Your task to perform on an android device: Clear all items from cart on newegg.com. Add logitech g502 to the cart on newegg.com Image 0: 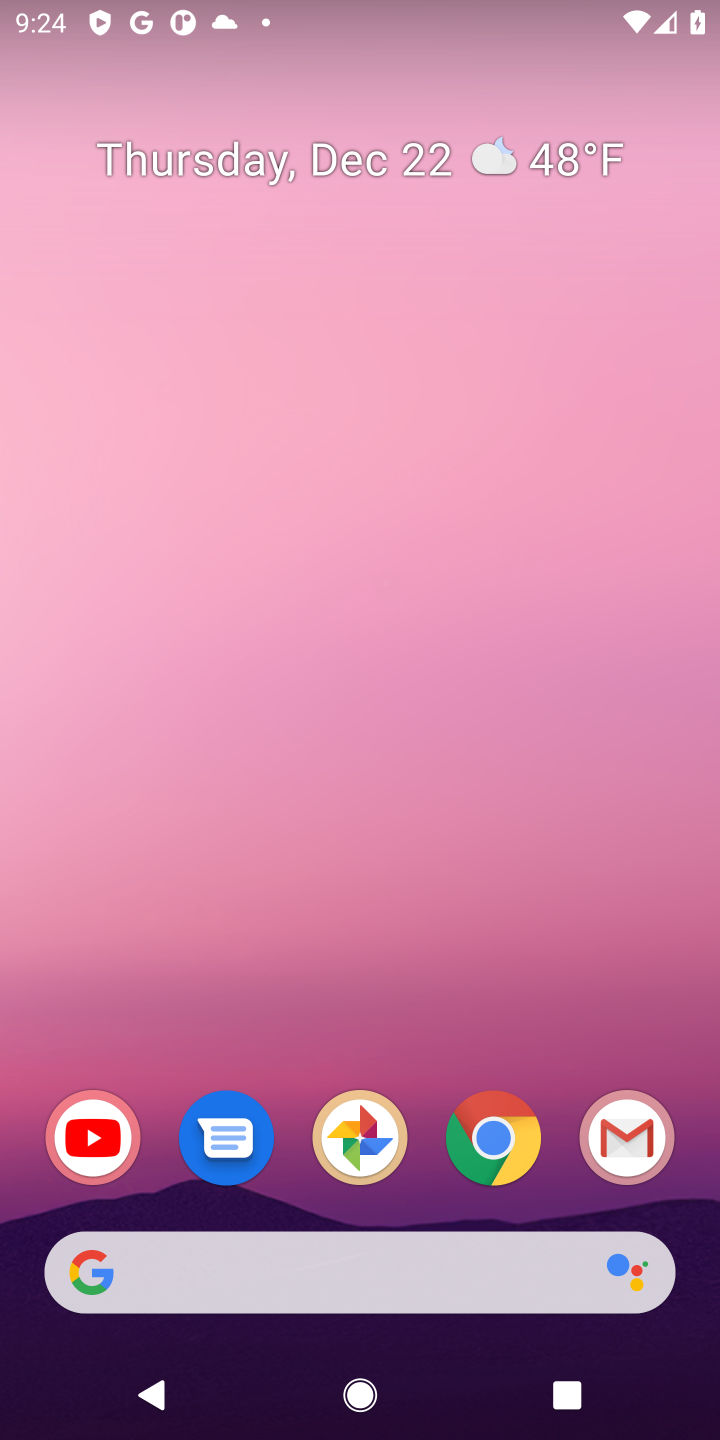
Step 0: click (489, 1145)
Your task to perform on an android device: Clear all items from cart on newegg.com. Add logitech g502 to the cart on newegg.com Image 1: 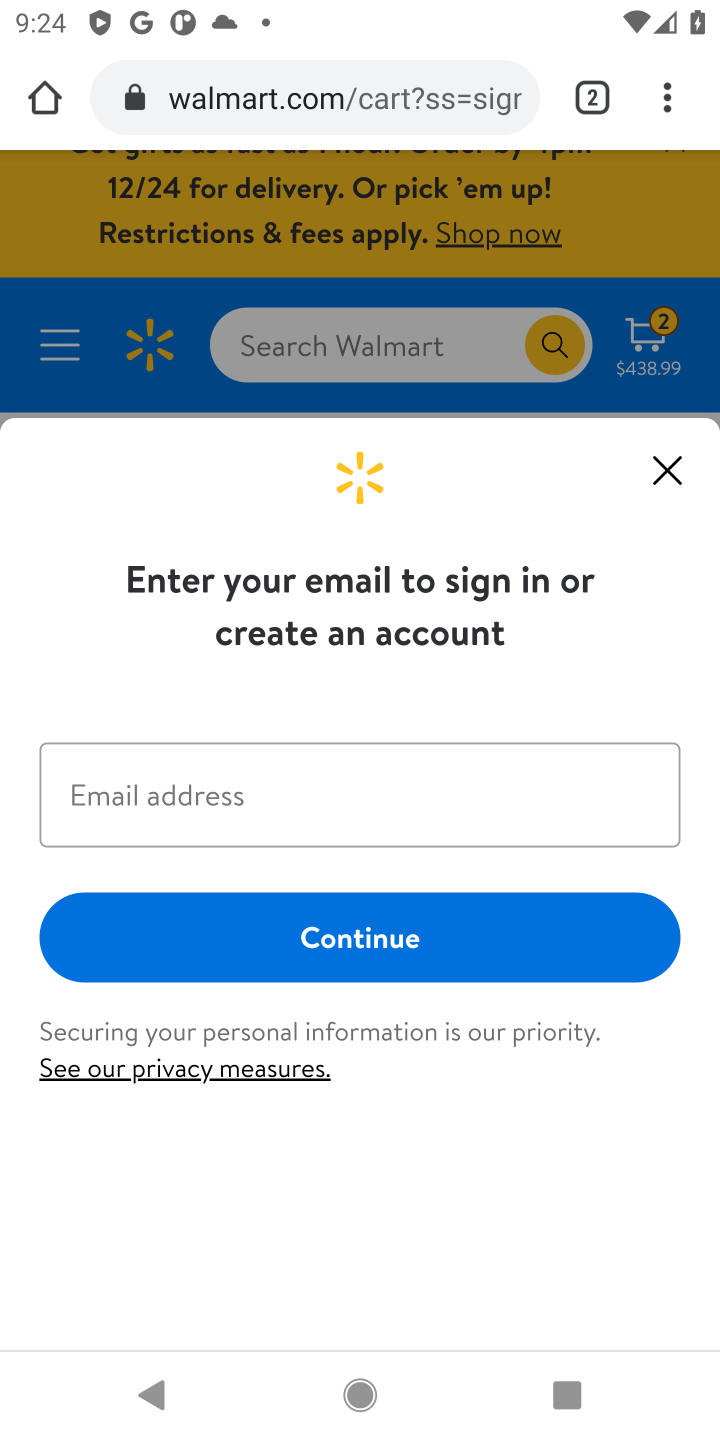
Step 1: click (210, 97)
Your task to perform on an android device: Clear all items from cart on newegg.com. Add logitech g502 to the cart on newegg.com Image 2: 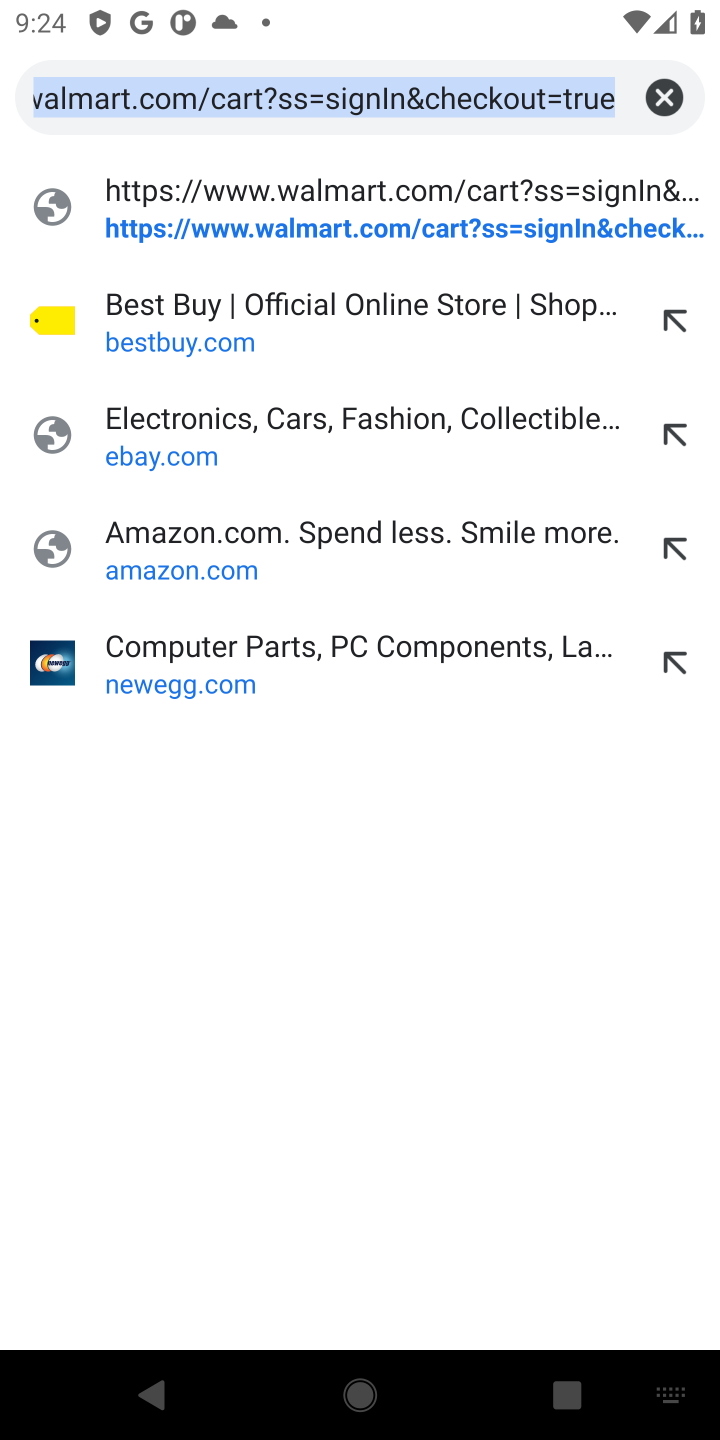
Step 2: type "newegg.com"
Your task to perform on an android device: Clear all items from cart on newegg.com. Add logitech g502 to the cart on newegg.com Image 3: 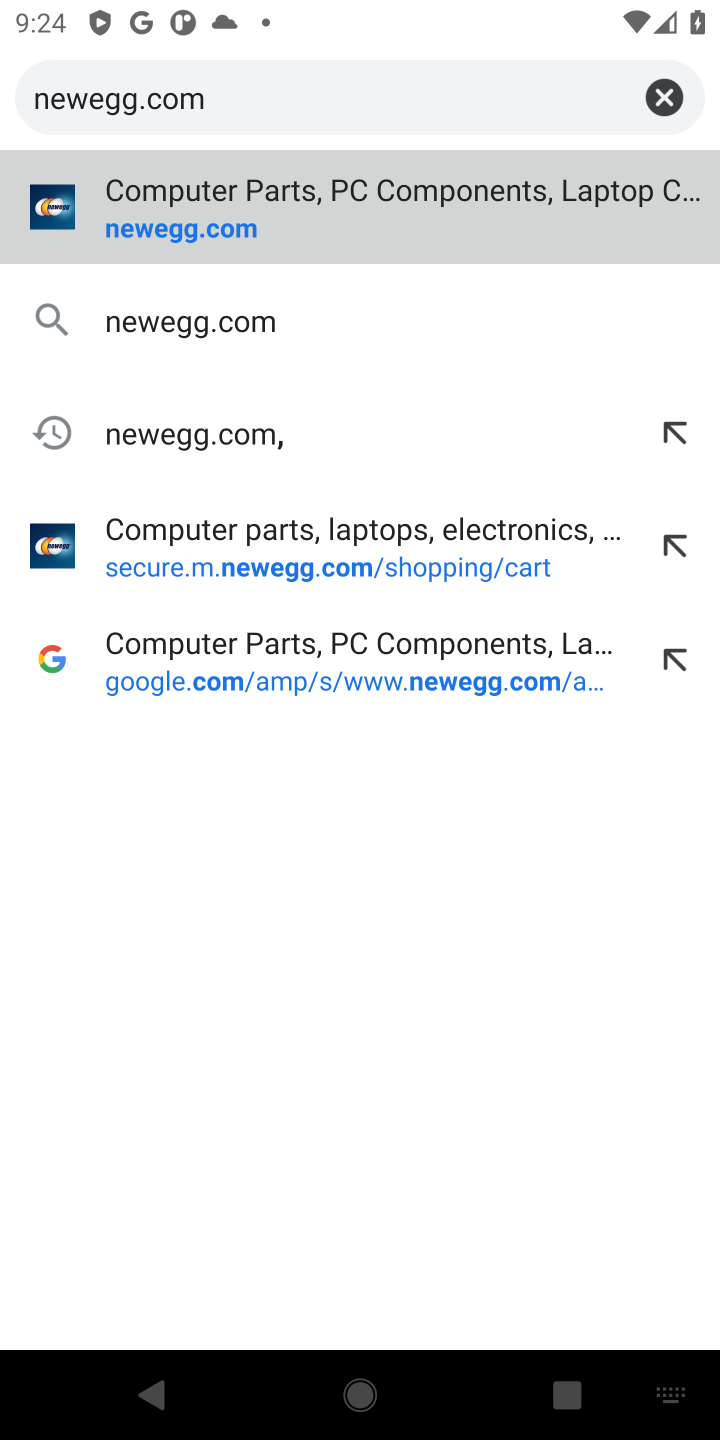
Step 3: press enter
Your task to perform on an android device: Clear all items from cart on newegg.com. Add logitech g502 to the cart on newegg.com Image 4: 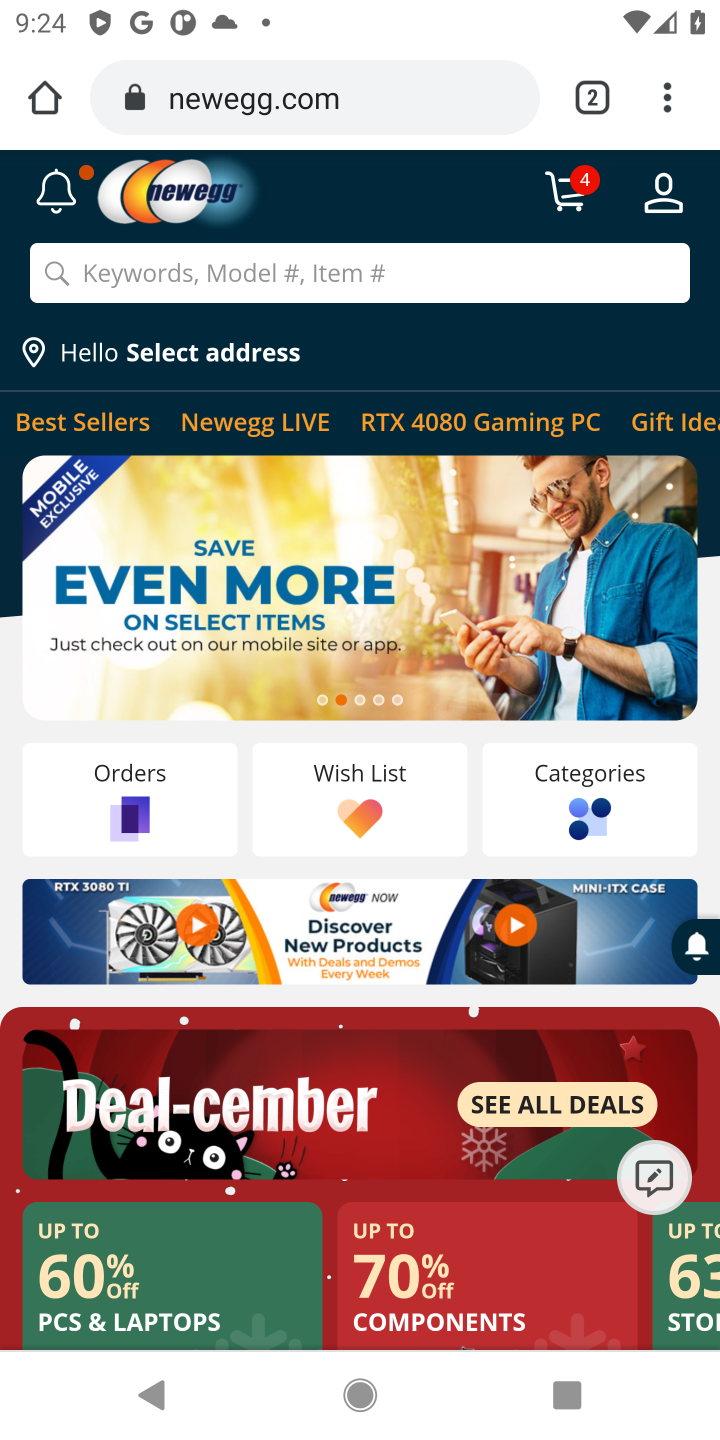
Step 4: click (552, 207)
Your task to perform on an android device: Clear all items from cart on newegg.com. Add logitech g502 to the cart on newegg.com Image 5: 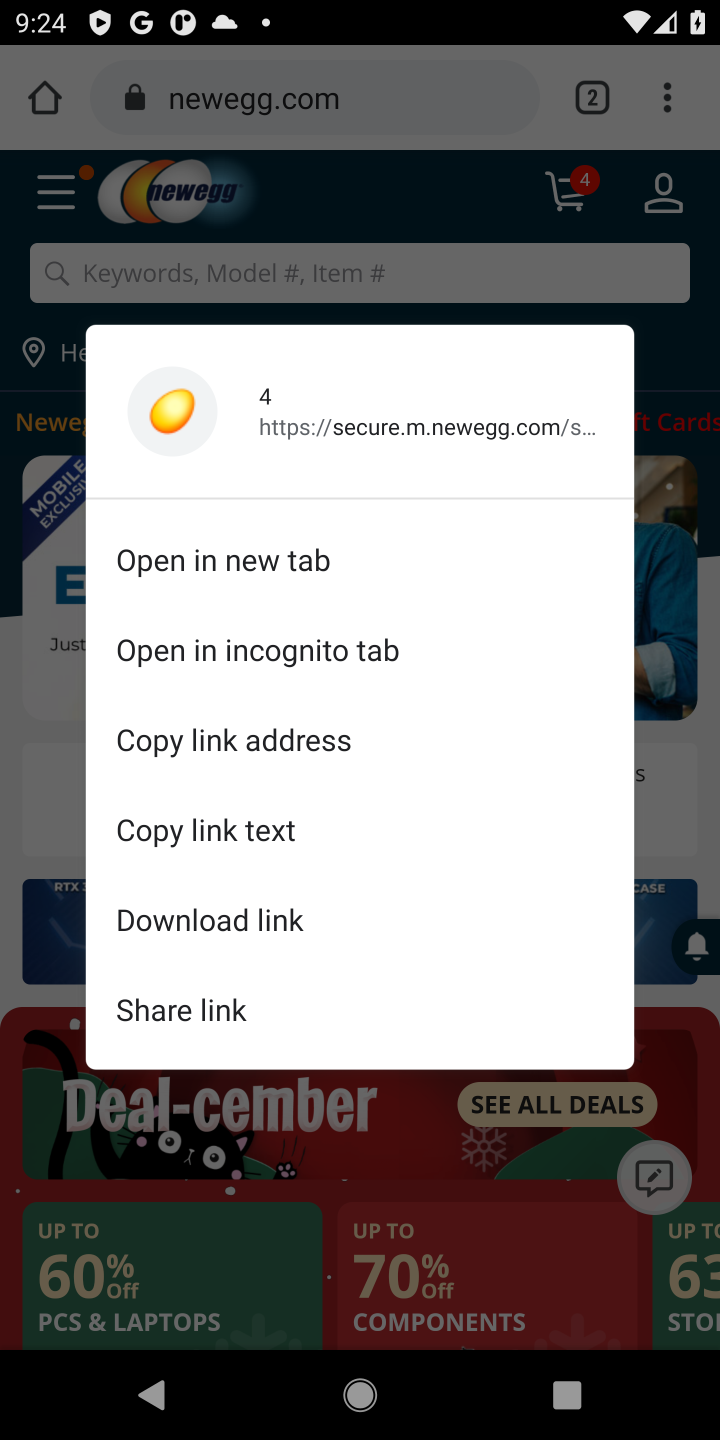
Step 5: click (574, 215)
Your task to perform on an android device: Clear all items from cart on newegg.com. Add logitech g502 to the cart on newegg.com Image 6: 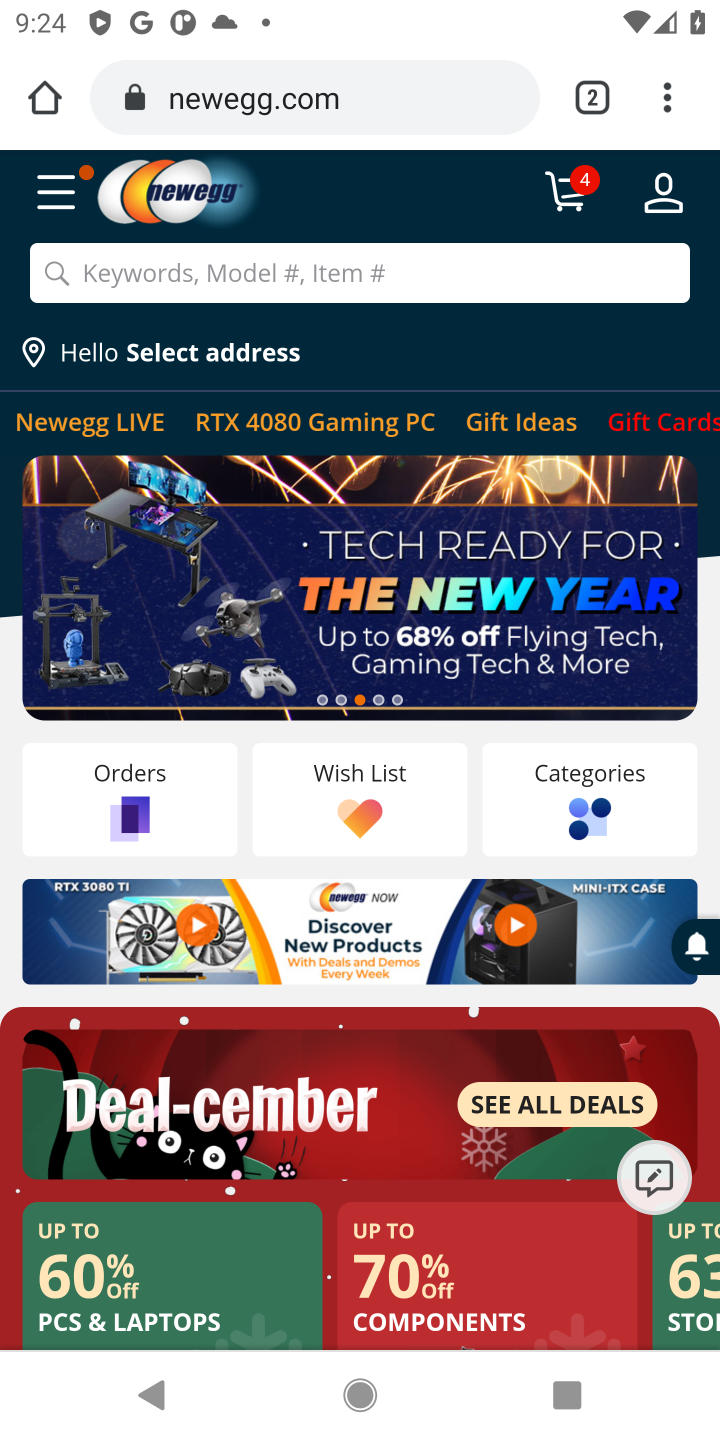
Step 6: click (574, 215)
Your task to perform on an android device: Clear all items from cart on newegg.com. Add logitech g502 to the cart on newegg.com Image 7: 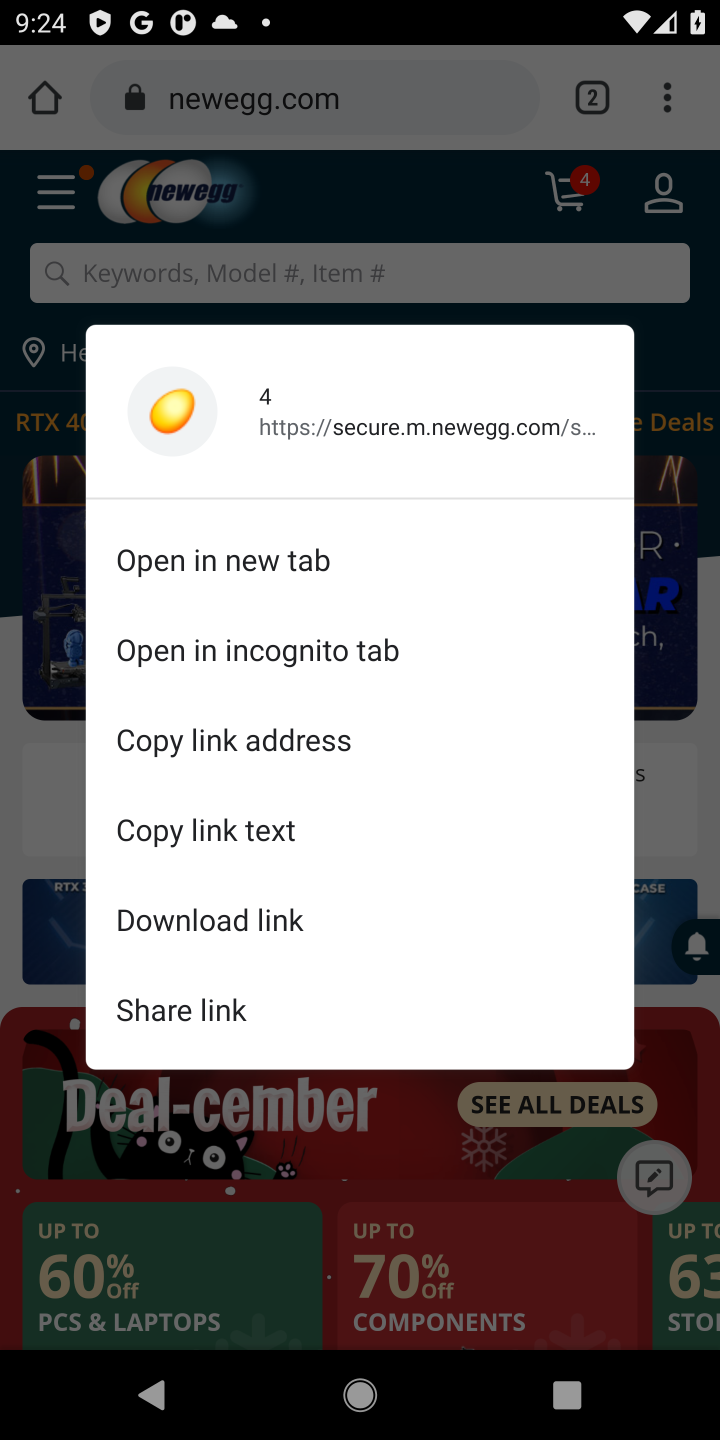
Step 7: click (574, 215)
Your task to perform on an android device: Clear all items from cart on newegg.com. Add logitech g502 to the cart on newegg.com Image 8: 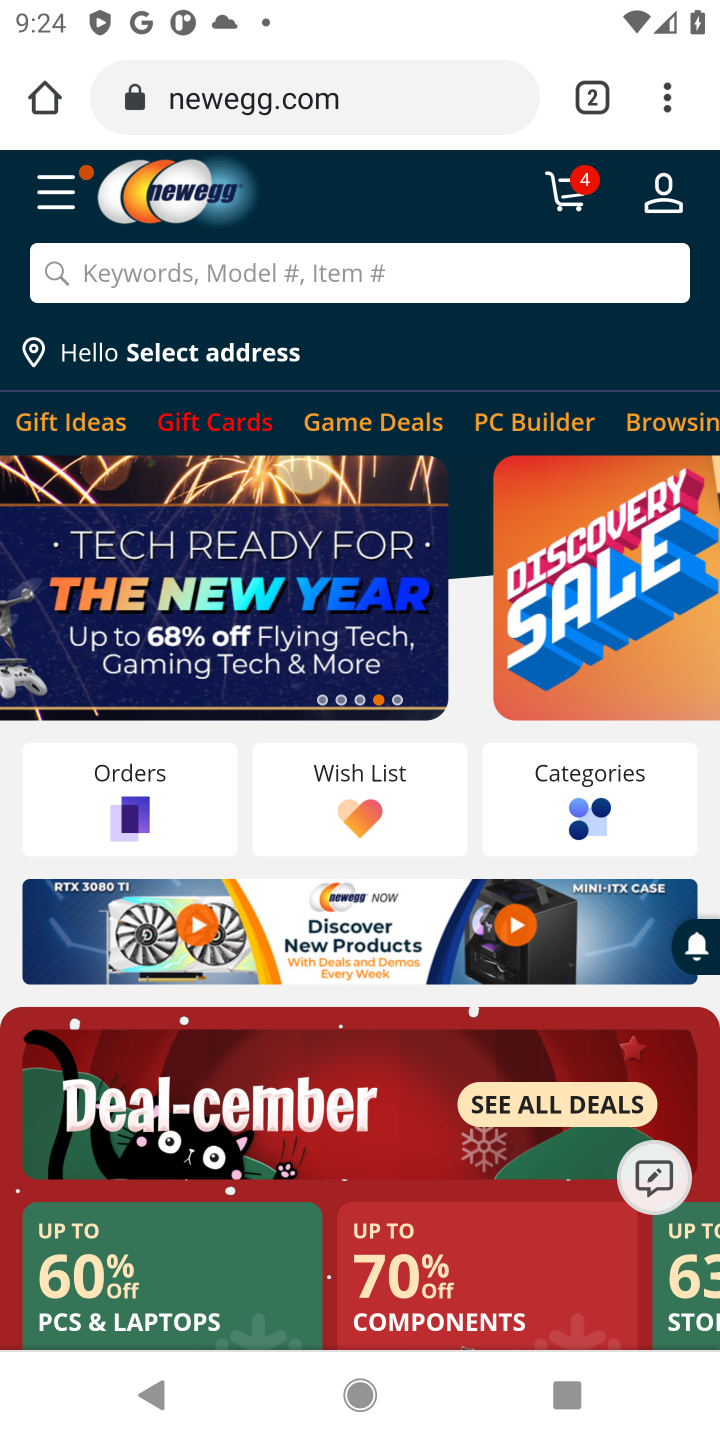
Step 8: click (579, 203)
Your task to perform on an android device: Clear all items from cart on newegg.com. Add logitech g502 to the cart on newegg.com Image 9: 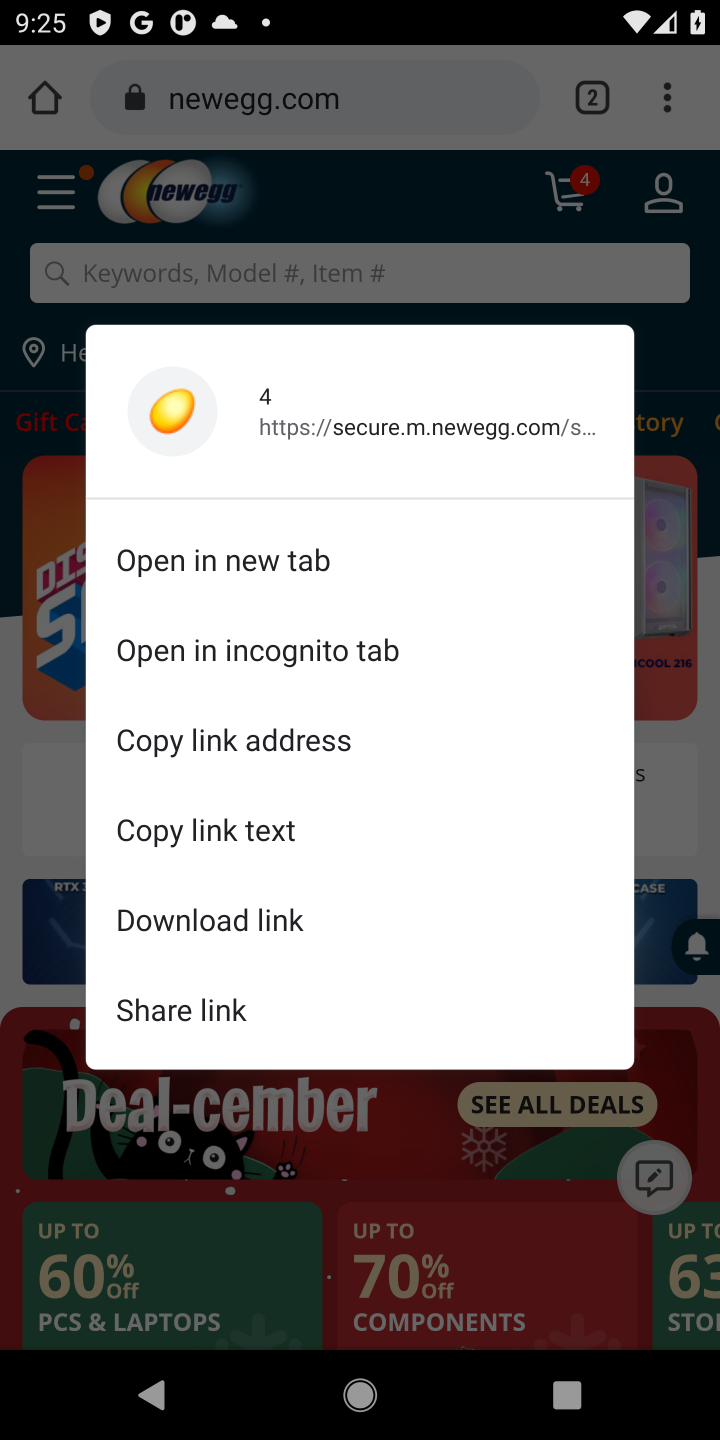
Step 9: click (579, 203)
Your task to perform on an android device: Clear all items from cart on newegg.com. Add logitech g502 to the cart on newegg.com Image 10: 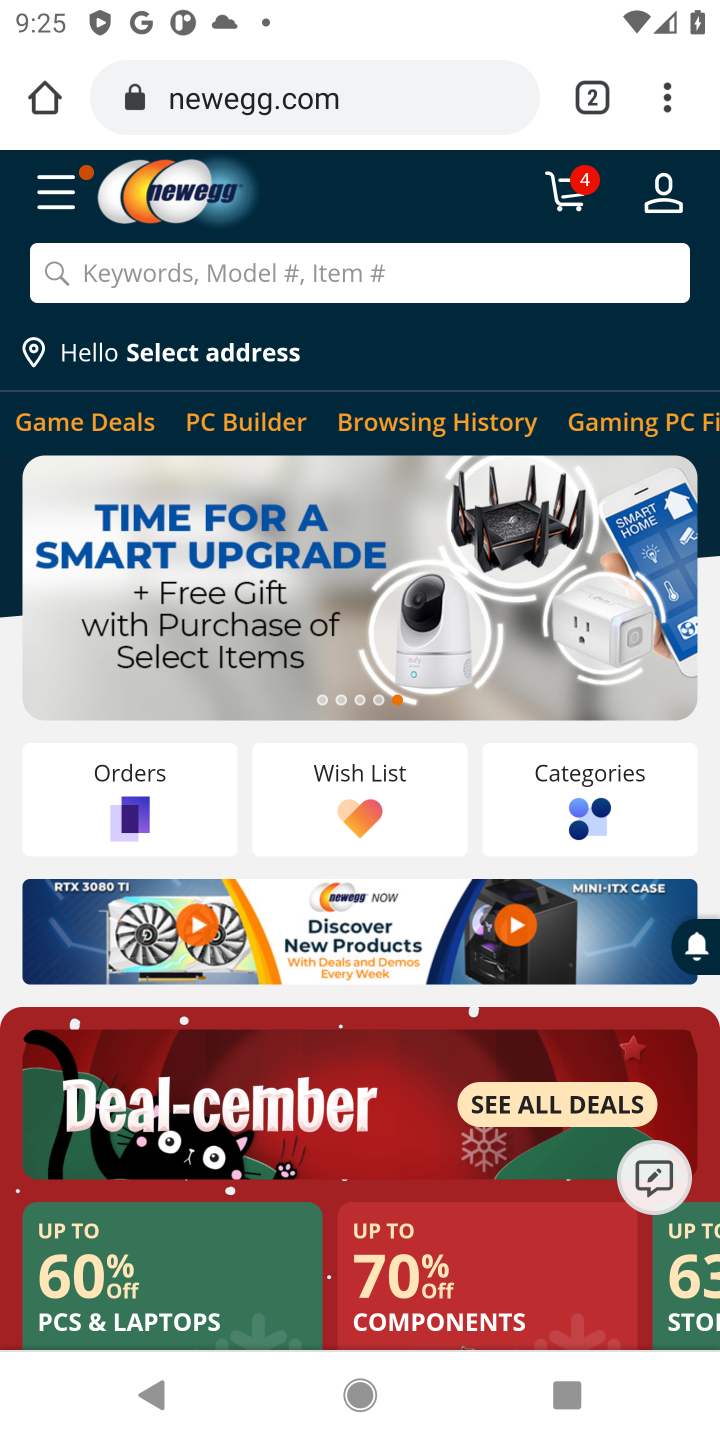
Step 10: click (575, 198)
Your task to perform on an android device: Clear all items from cart on newegg.com. Add logitech g502 to the cart on newegg.com Image 11: 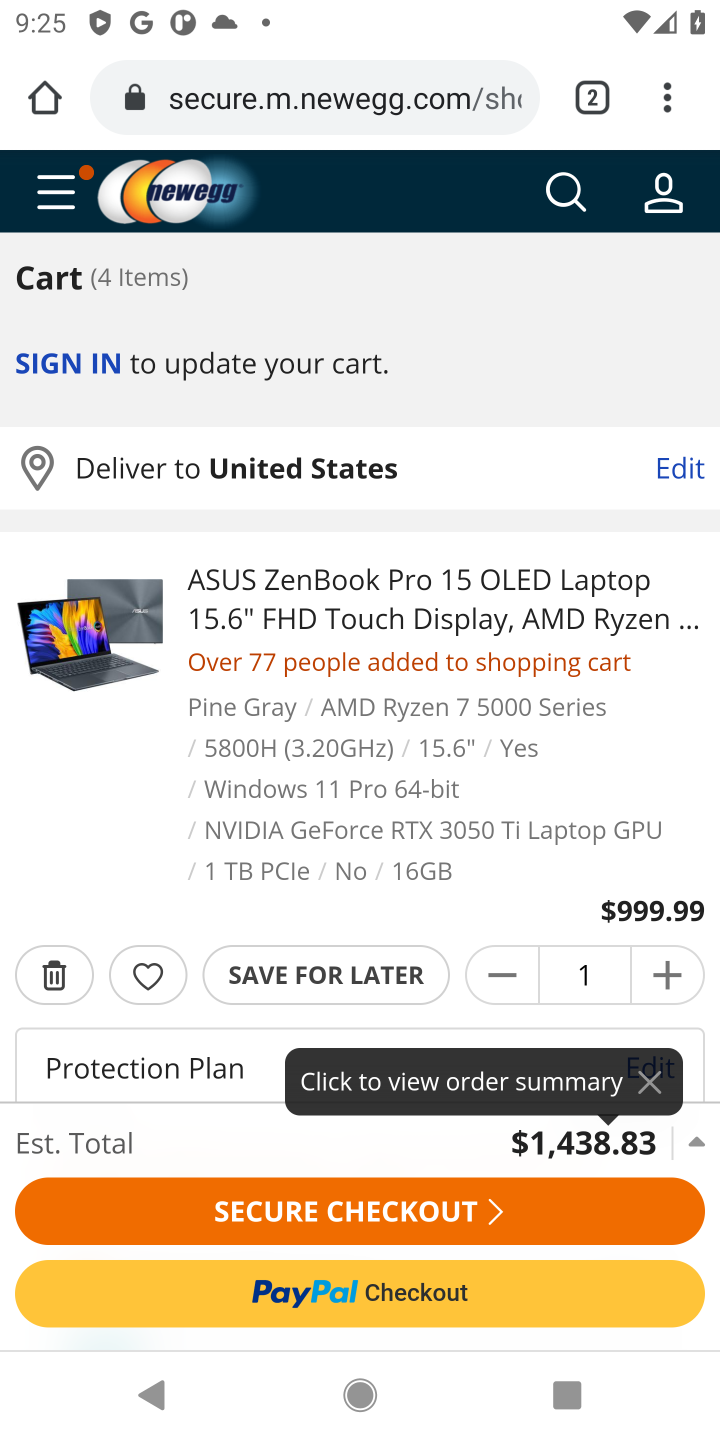
Step 11: drag from (580, 436) to (549, 220)
Your task to perform on an android device: Clear all items from cart on newegg.com. Add logitech g502 to the cart on newegg.com Image 12: 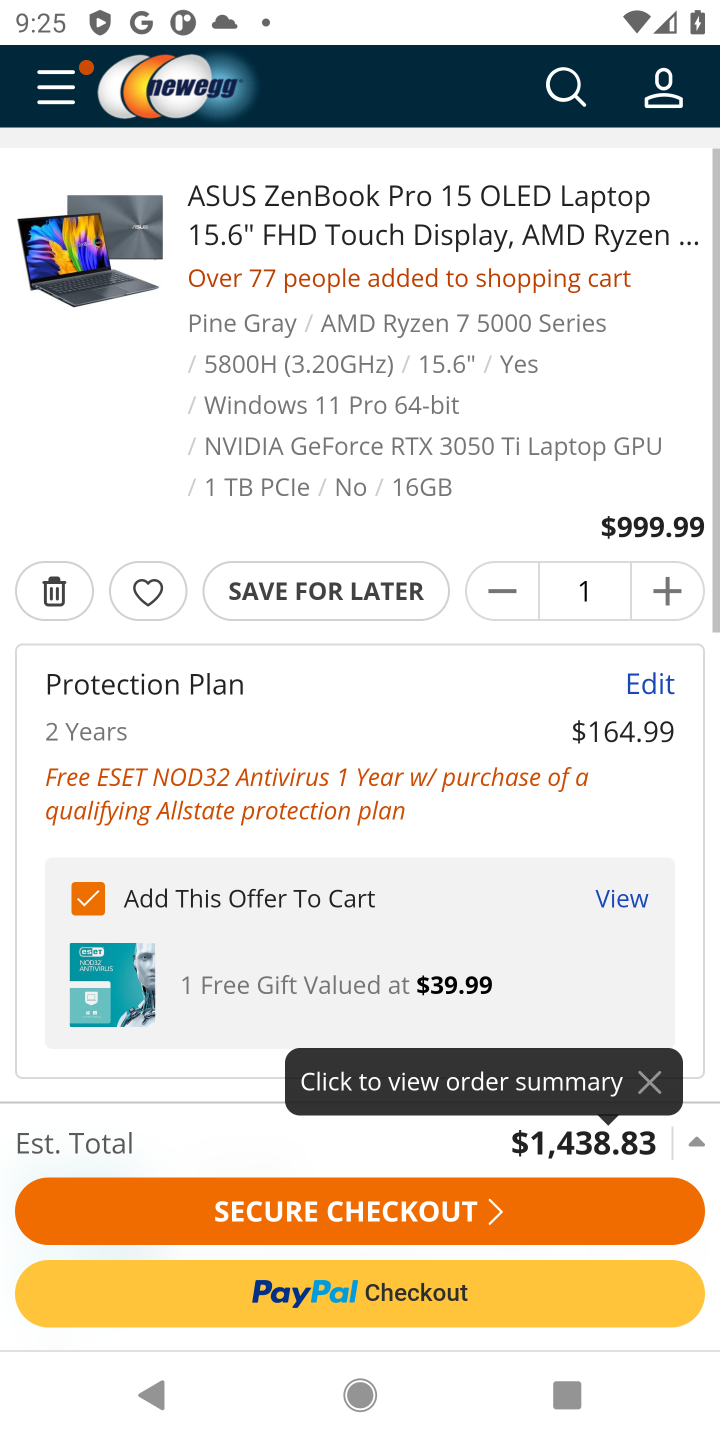
Step 12: drag from (549, 541) to (565, 267)
Your task to perform on an android device: Clear all items from cart on newegg.com. Add logitech g502 to the cart on newegg.com Image 13: 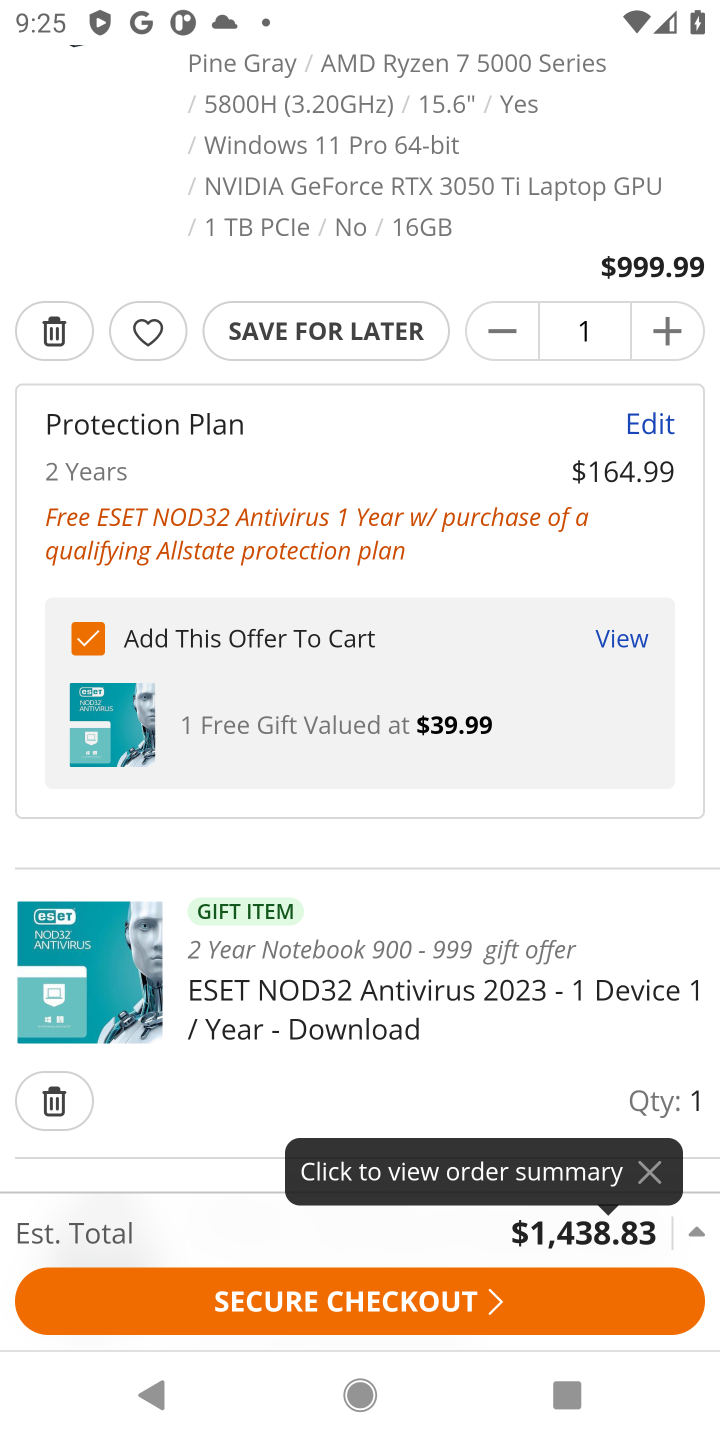
Step 13: drag from (526, 872) to (571, 227)
Your task to perform on an android device: Clear all items from cart on newegg.com. Add logitech g502 to the cart on newegg.com Image 14: 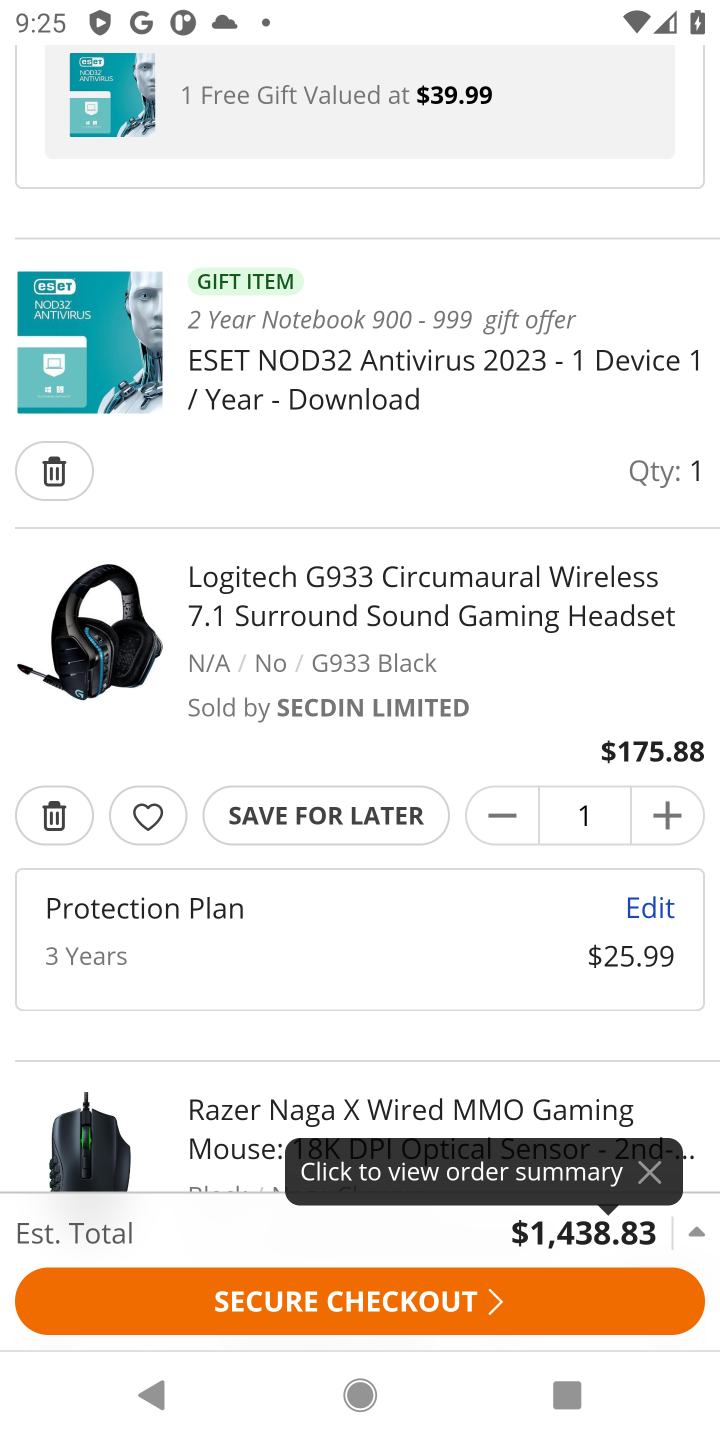
Step 14: drag from (580, 494) to (559, 336)
Your task to perform on an android device: Clear all items from cart on newegg.com. Add logitech g502 to the cart on newegg.com Image 15: 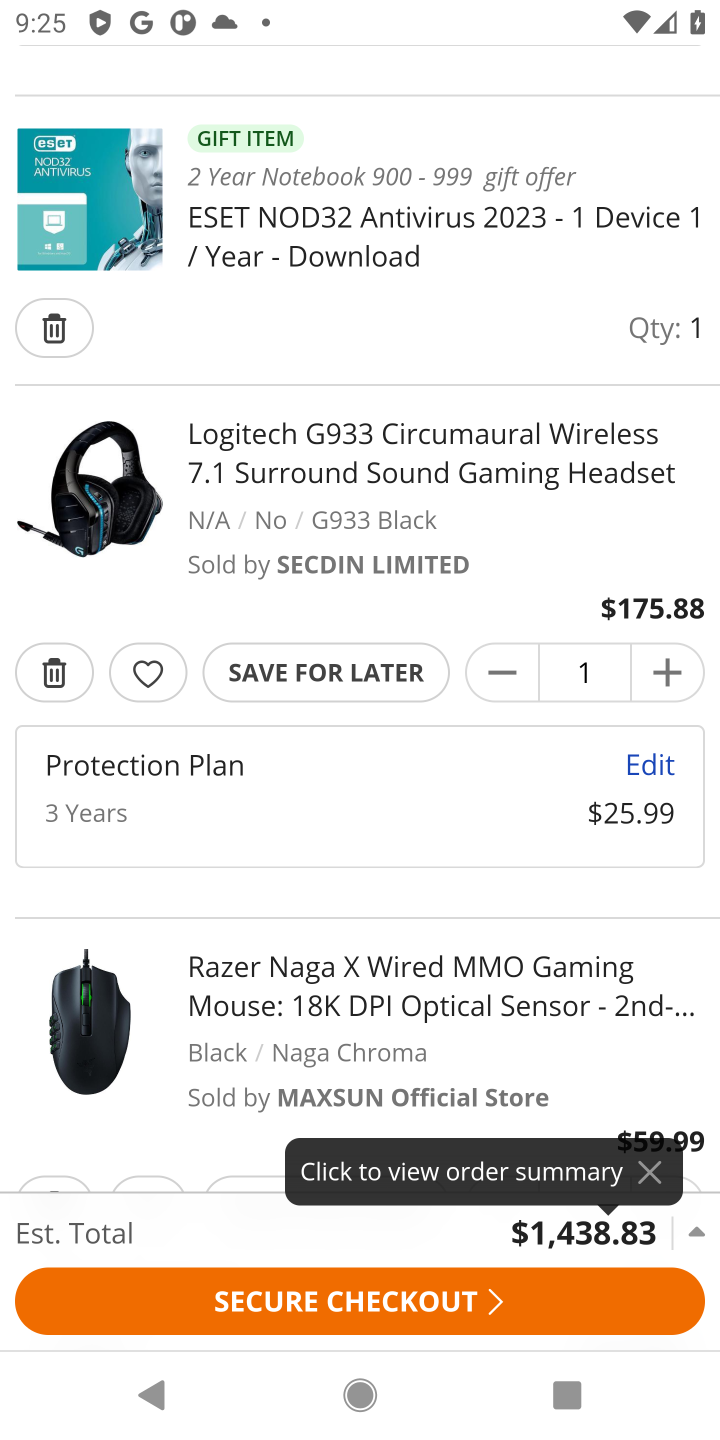
Step 15: drag from (655, 430) to (566, 40)
Your task to perform on an android device: Clear all items from cart on newegg.com. Add logitech g502 to the cart on newegg.com Image 16: 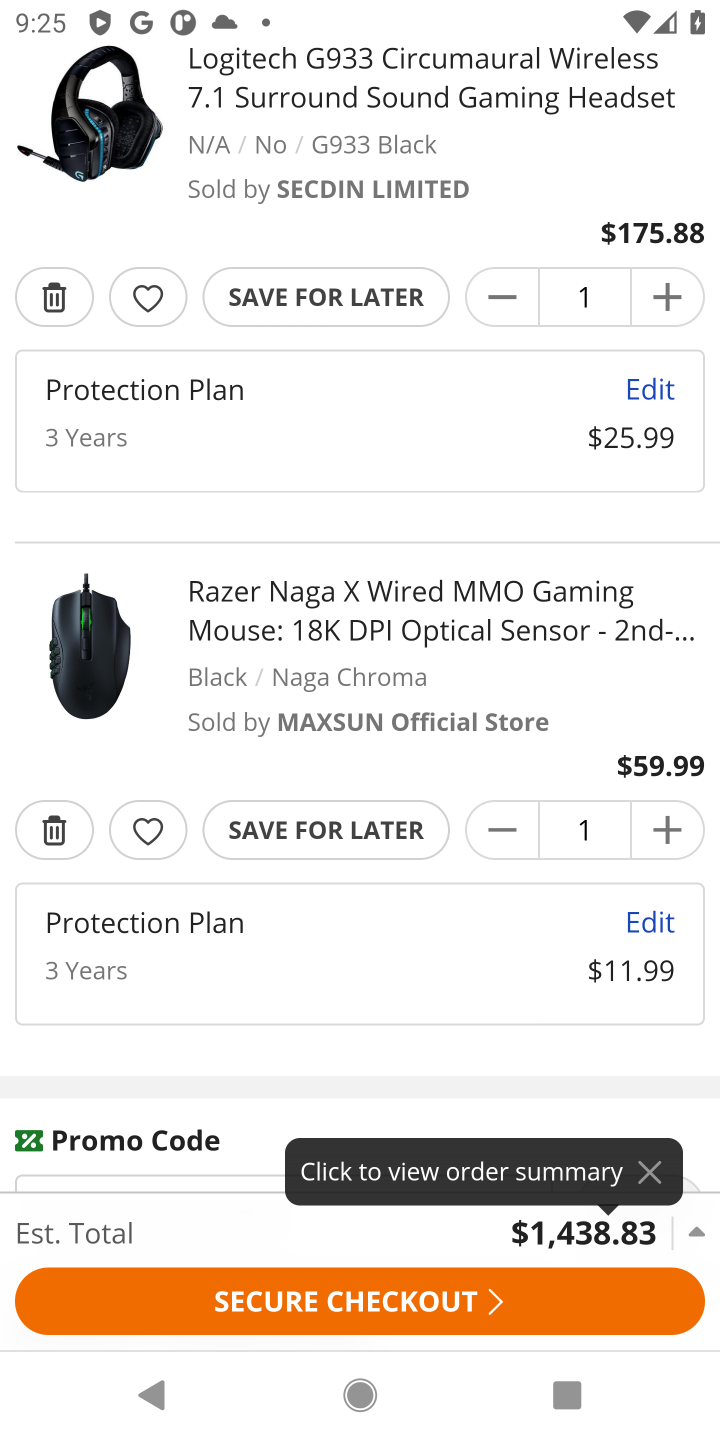
Step 16: click (44, 844)
Your task to perform on an android device: Clear all items from cart on newegg.com. Add logitech g502 to the cart on newegg.com Image 17: 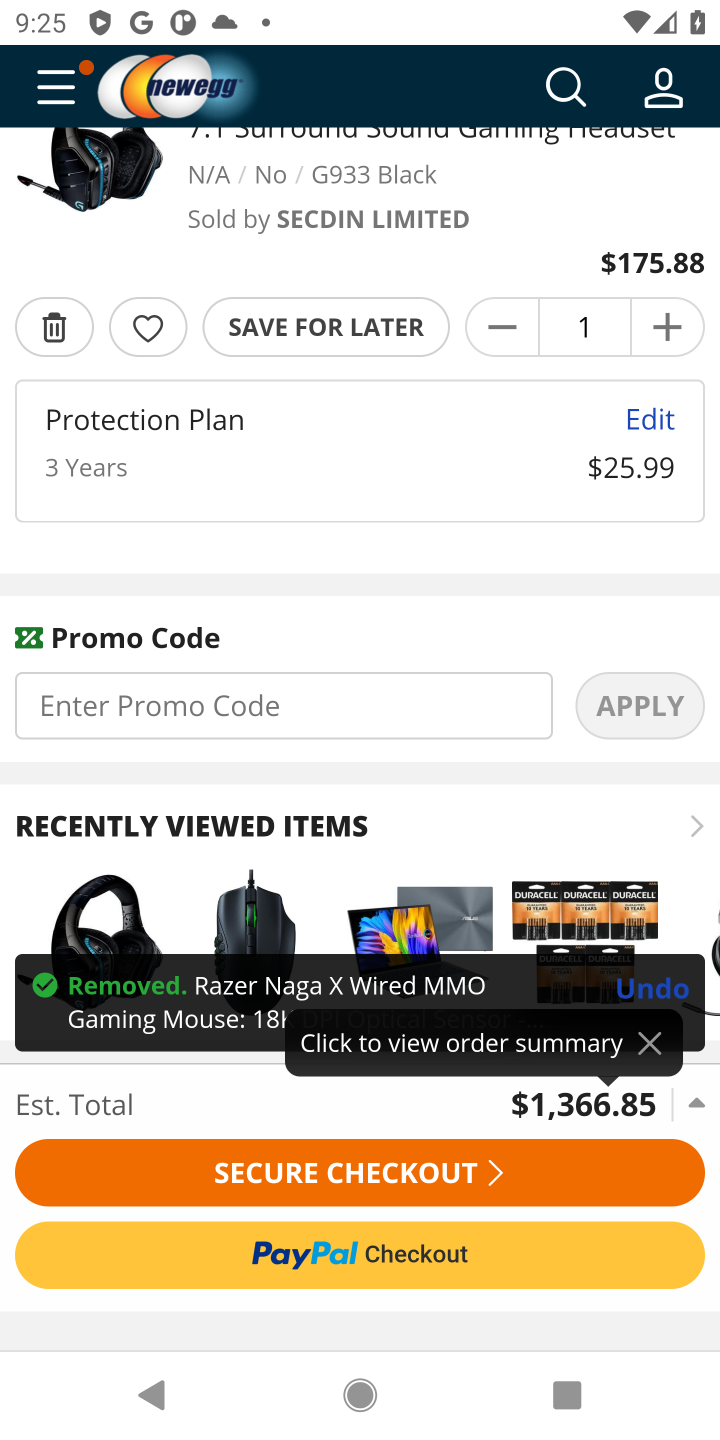
Step 17: click (57, 331)
Your task to perform on an android device: Clear all items from cart on newegg.com. Add logitech g502 to the cart on newegg.com Image 18: 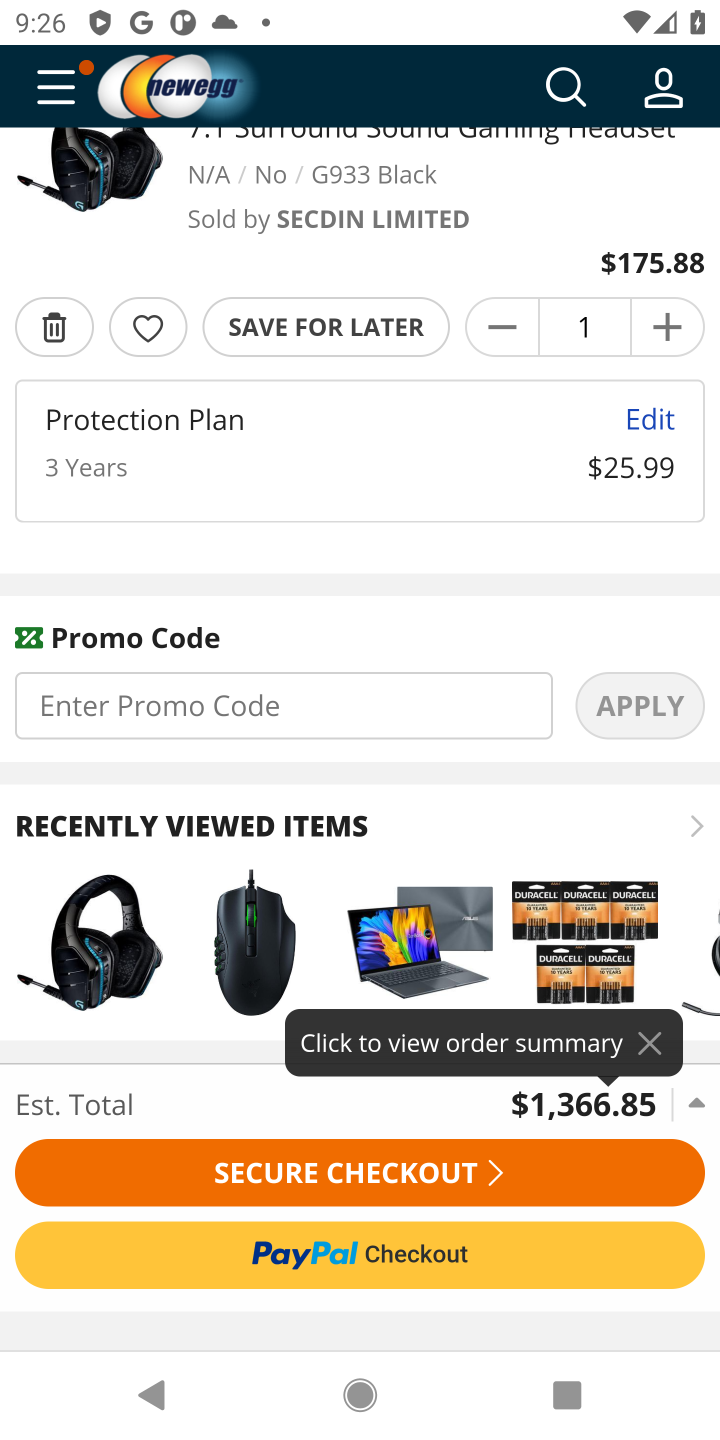
Step 18: click (38, 338)
Your task to perform on an android device: Clear all items from cart on newegg.com. Add logitech g502 to the cart on newegg.com Image 19: 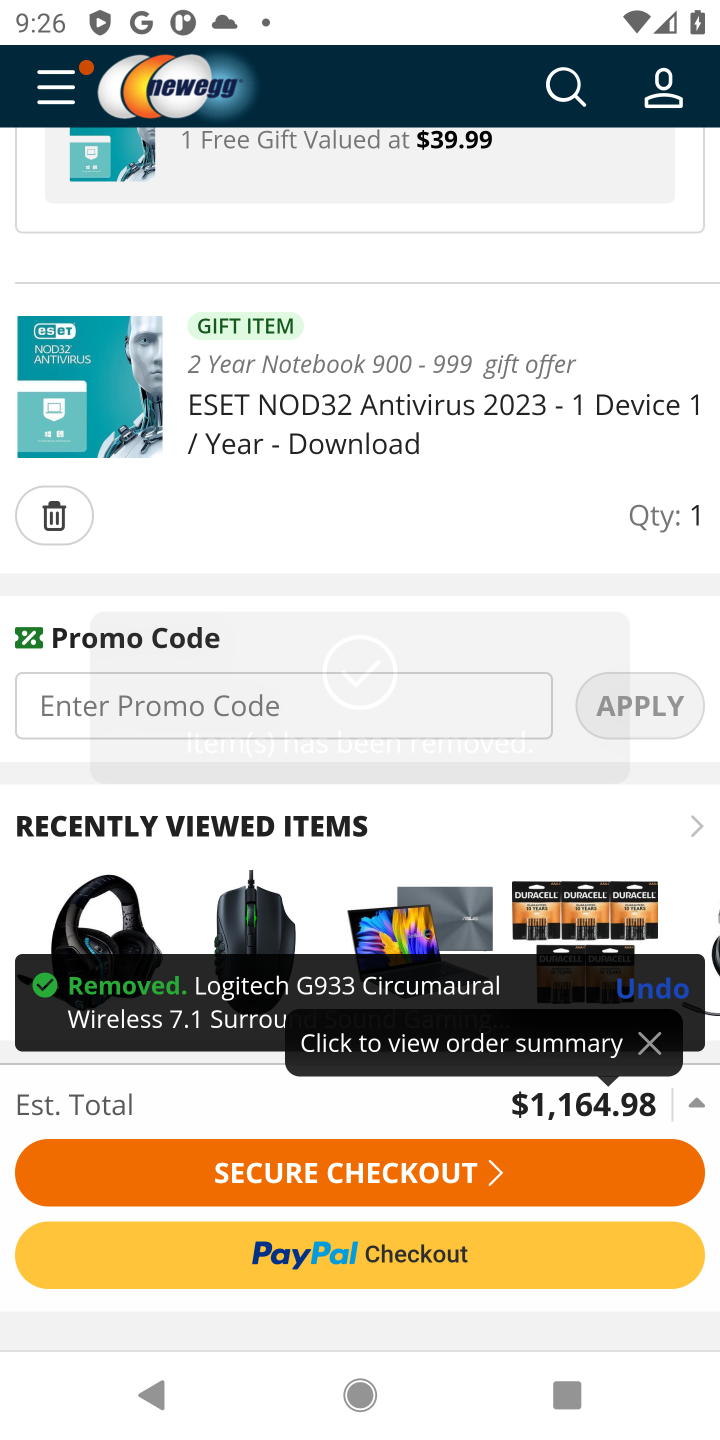
Step 19: click (52, 520)
Your task to perform on an android device: Clear all items from cart on newegg.com. Add logitech g502 to the cart on newegg.com Image 20: 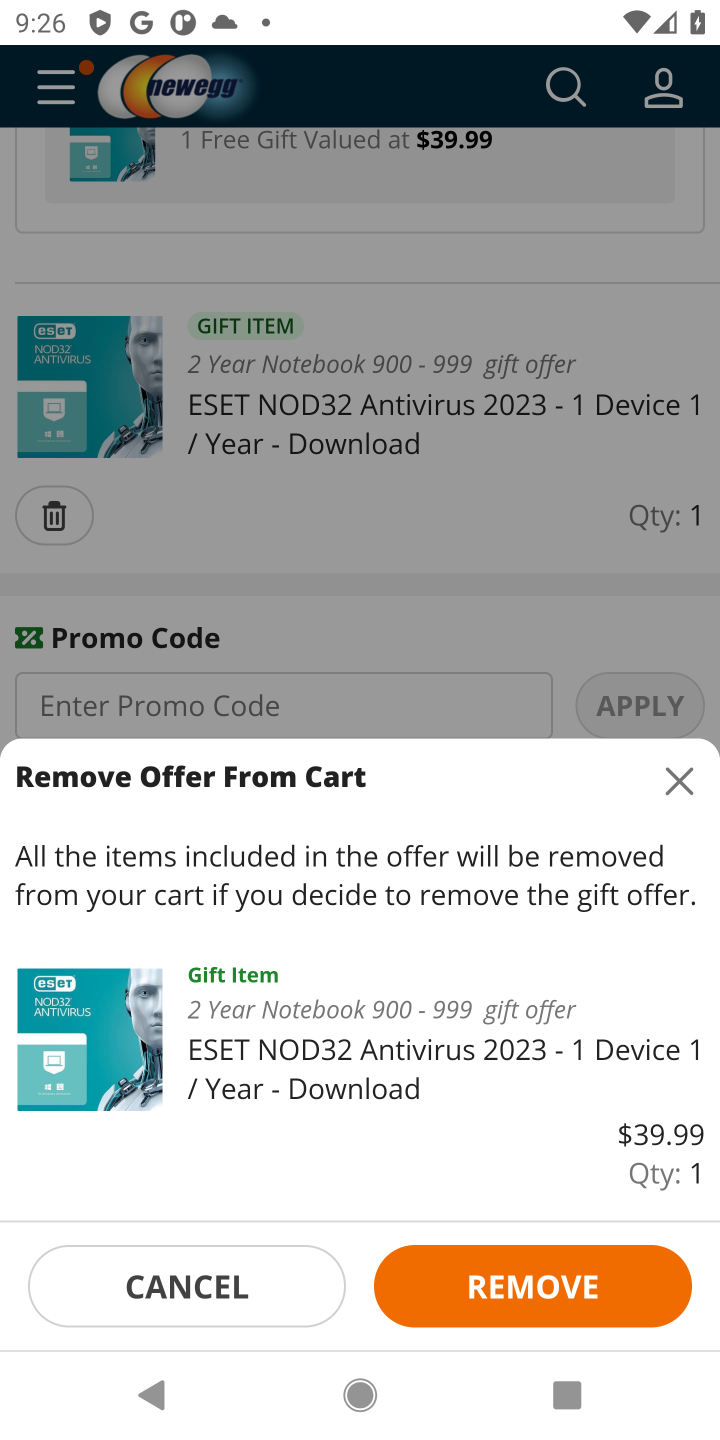
Step 20: click (519, 1291)
Your task to perform on an android device: Clear all items from cart on newegg.com. Add logitech g502 to the cart on newegg.com Image 21: 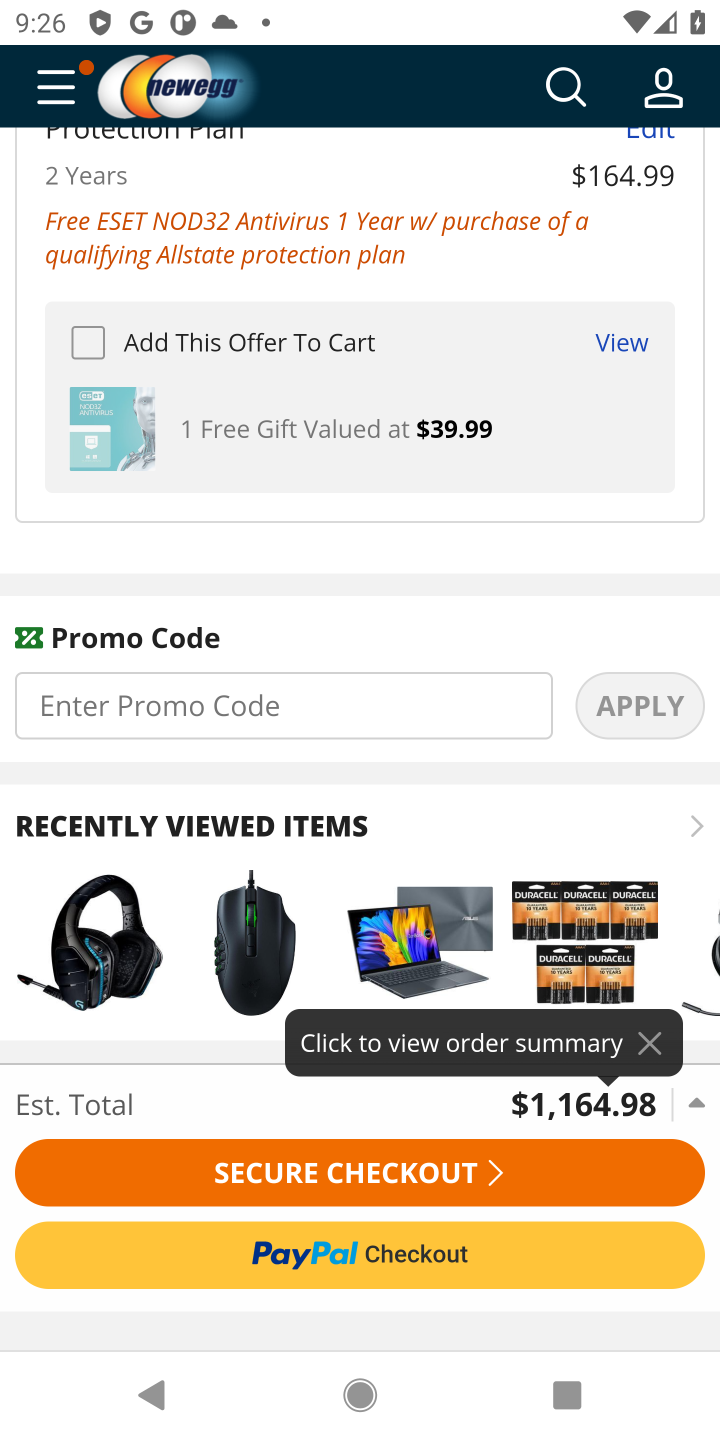
Step 21: drag from (224, 477) to (245, 1049)
Your task to perform on an android device: Clear all items from cart on newegg.com. Add logitech g502 to the cart on newegg.com Image 22: 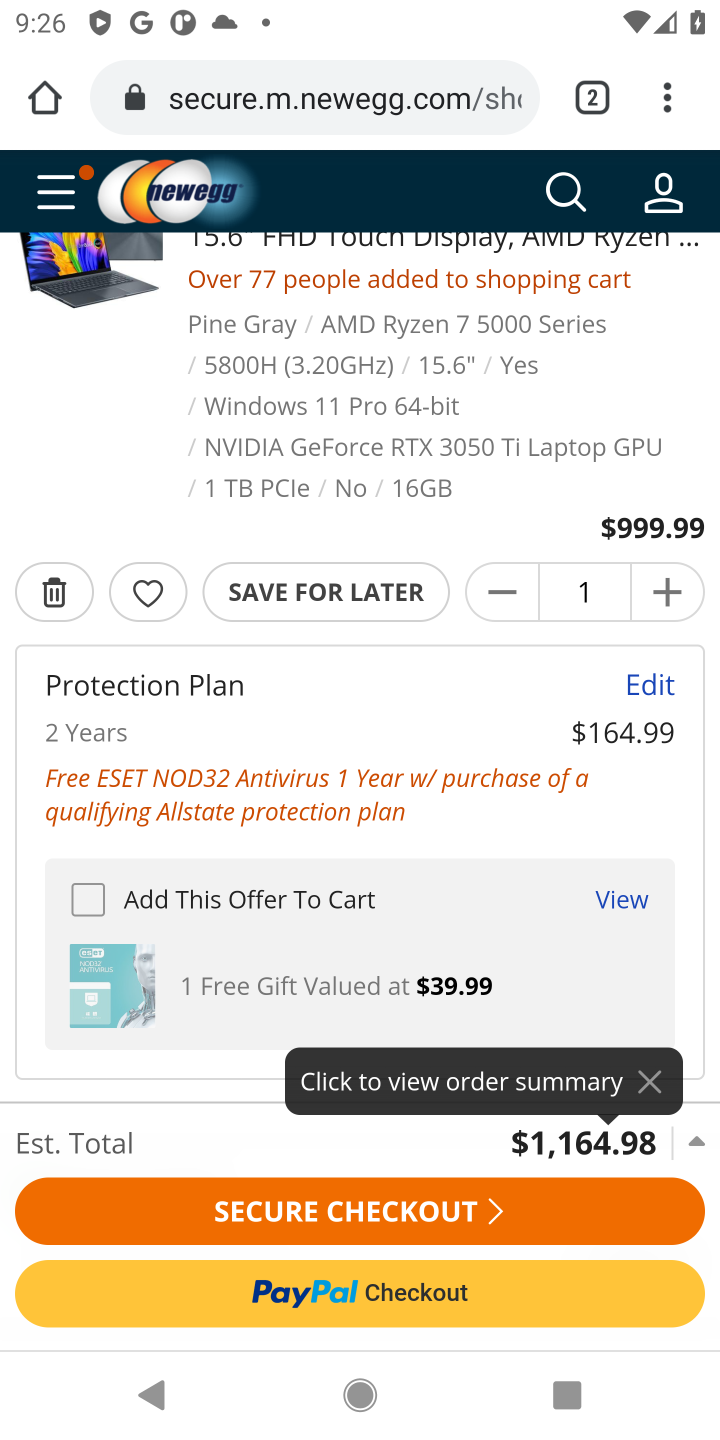
Step 22: click (54, 610)
Your task to perform on an android device: Clear all items from cart on newegg.com. Add logitech g502 to the cart on newegg.com Image 23: 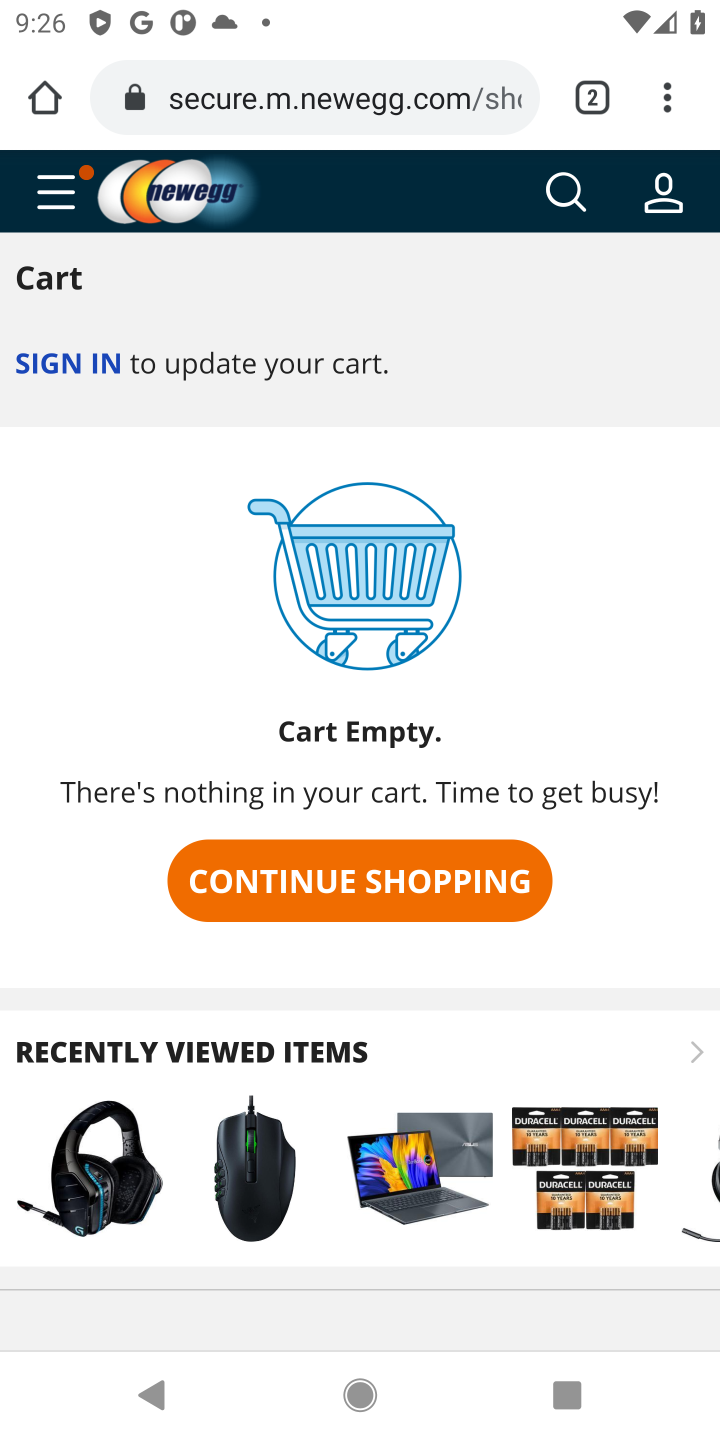
Step 23: click (572, 196)
Your task to perform on an android device: Clear all items from cart on newegg.com. Add logitech g502 to the cart on newegg.com Image 24: 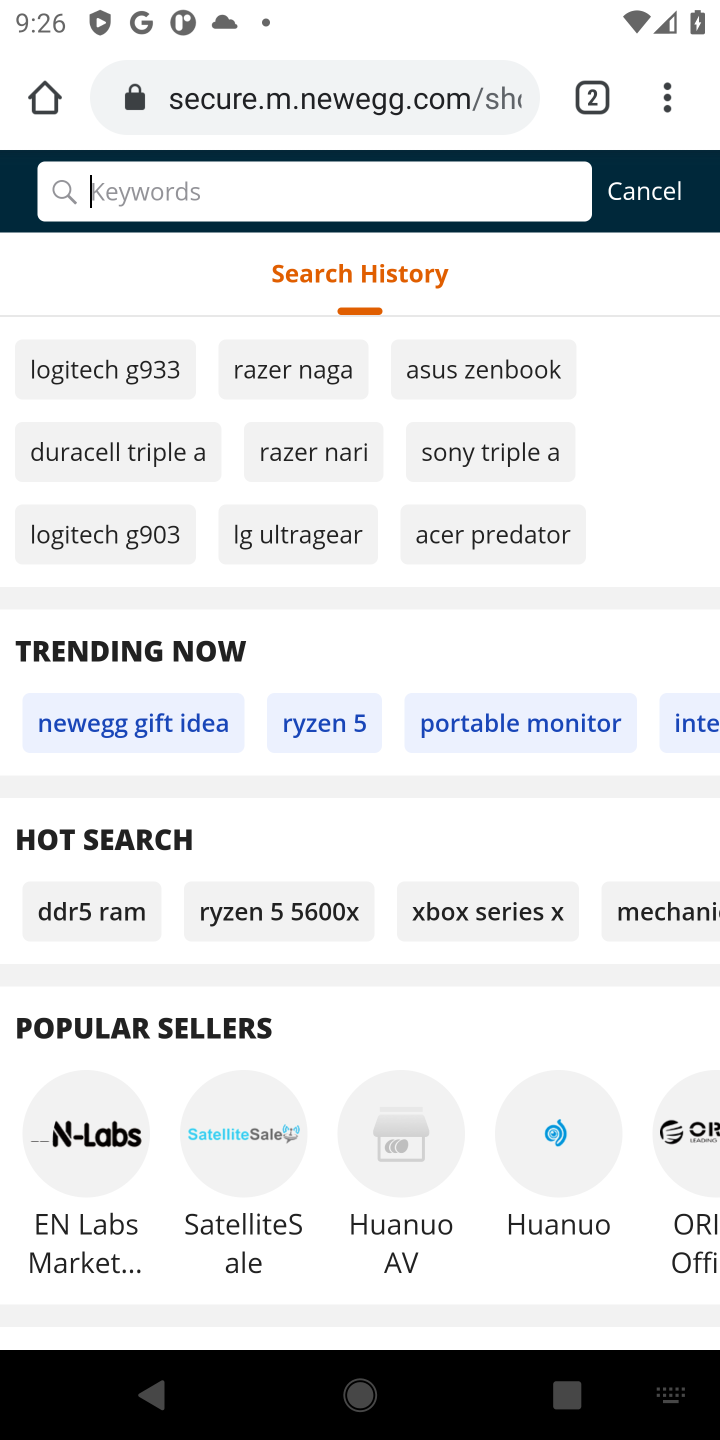
Step 24: type "ogitech g502"
Your task to perform on an android device: Clear all items from cart on newegg.com. Add logitech g502 to the cart on newegg.com Image 25: 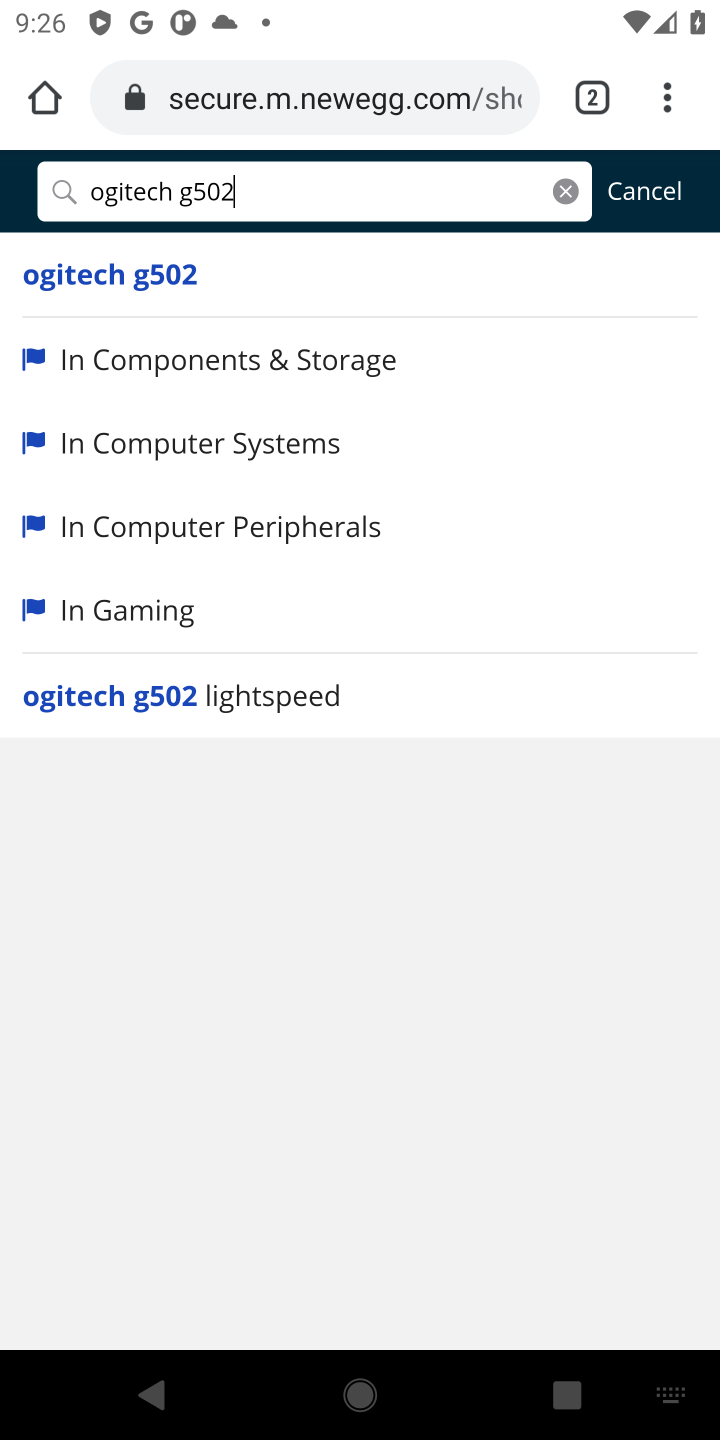
Step 25: press enter
Your task to perform on an android device: Clear all items from cart on newegg.com. Add logitech g502 to the cart on newegg.com Image 26: 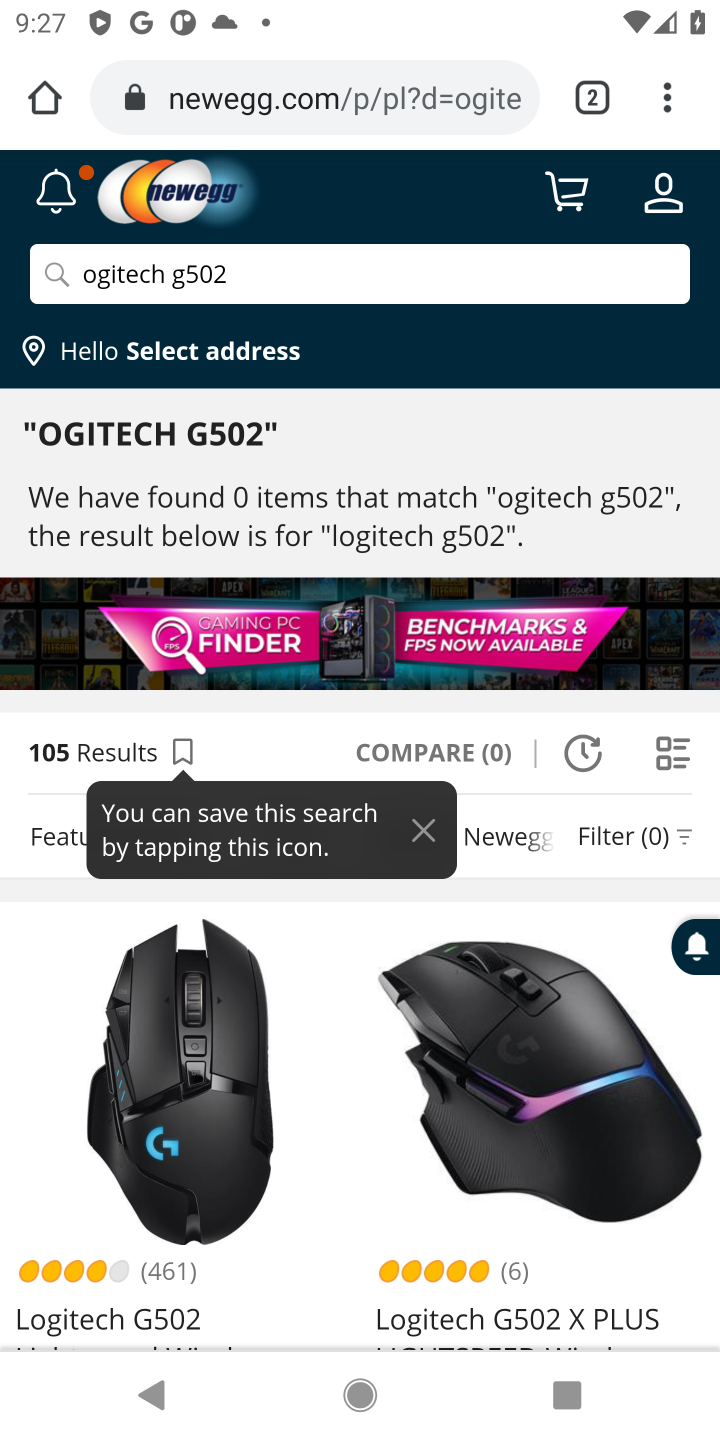
Step 26: click (184, 1168)
Your task to perform on an android device: Clear all items from cart on newegg.com. Add logitech g502 to the cart on newegg.com Image 27: 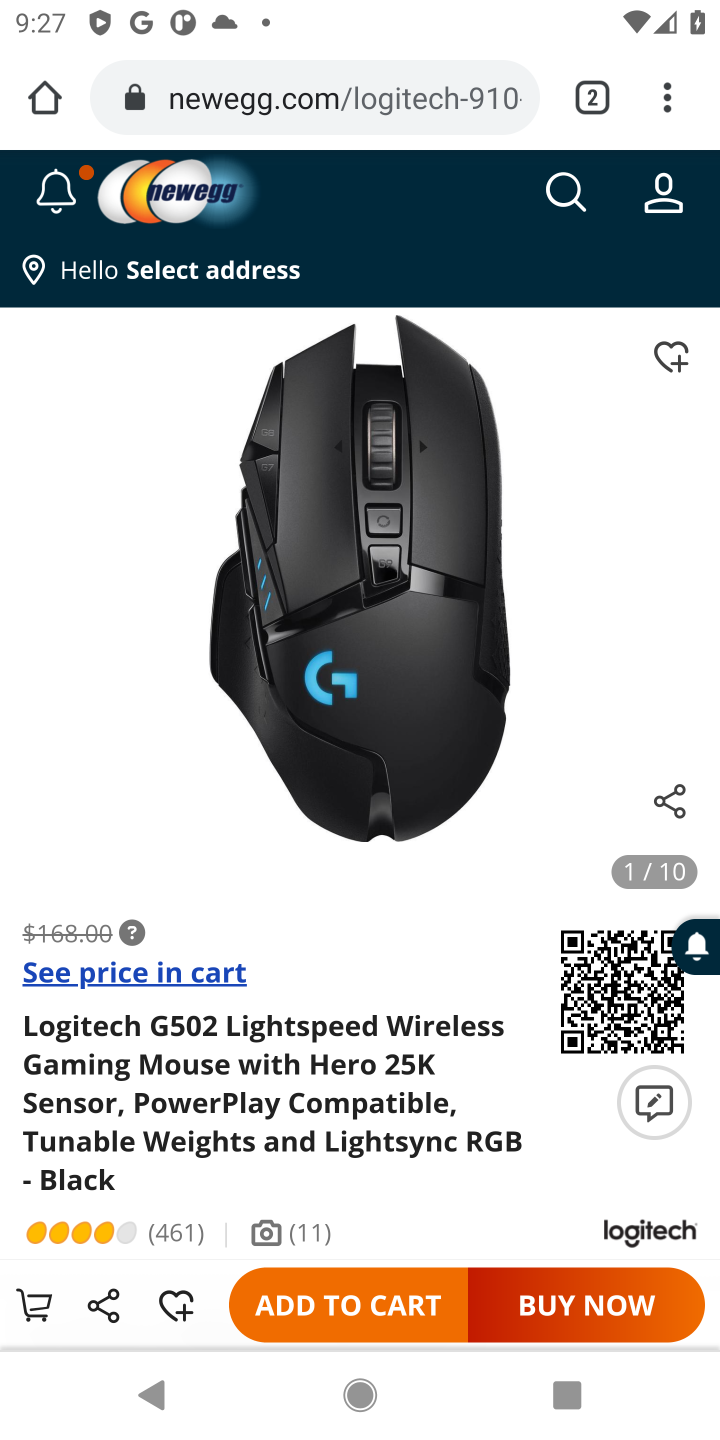
Step 27: click (337, 1301)
Your task to perform on an android device: Clear all items from cart on newegg.com. Add logitech g502 to the cart on newegg.com Image 28: 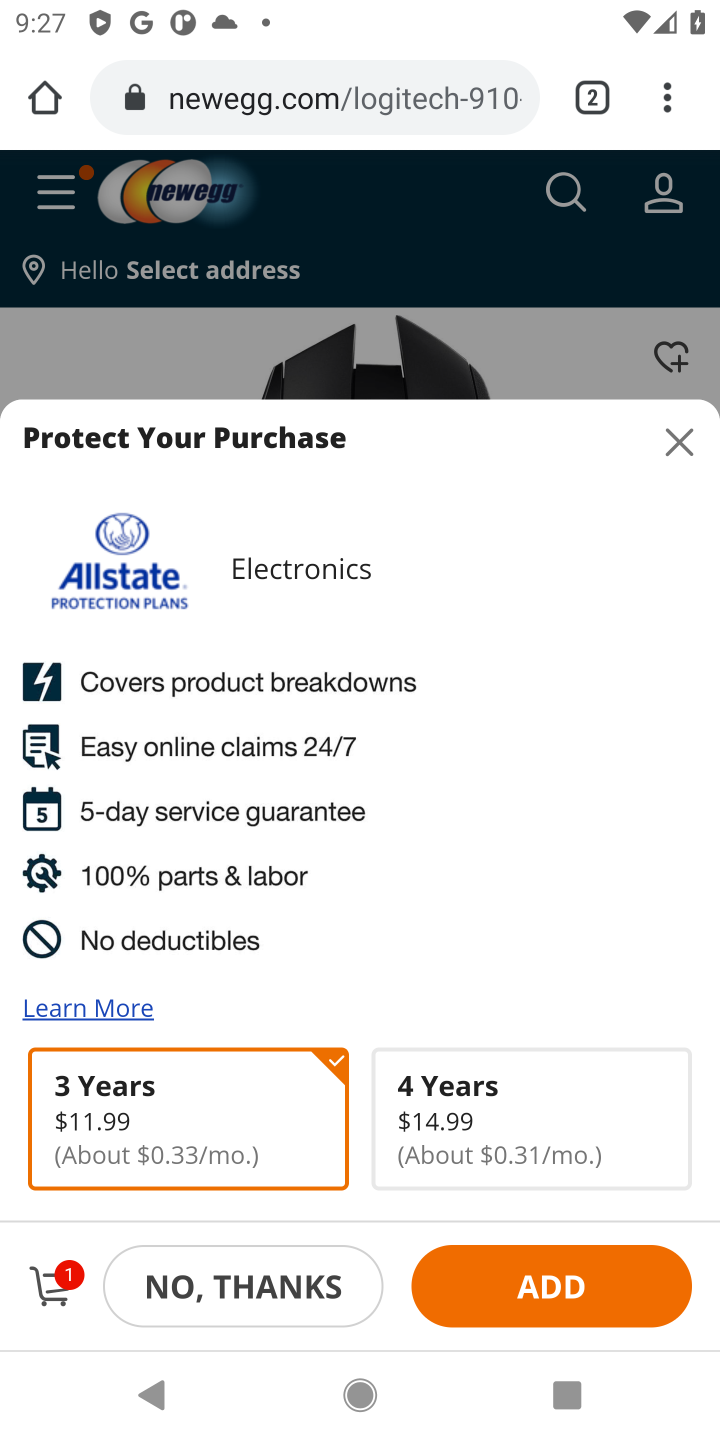
Step 28: click (527, 1294)
Your task to perform on an android device: Clear all items from cart on newegg.com. Add logitech g502 to the cart on newegg.com Image 29: 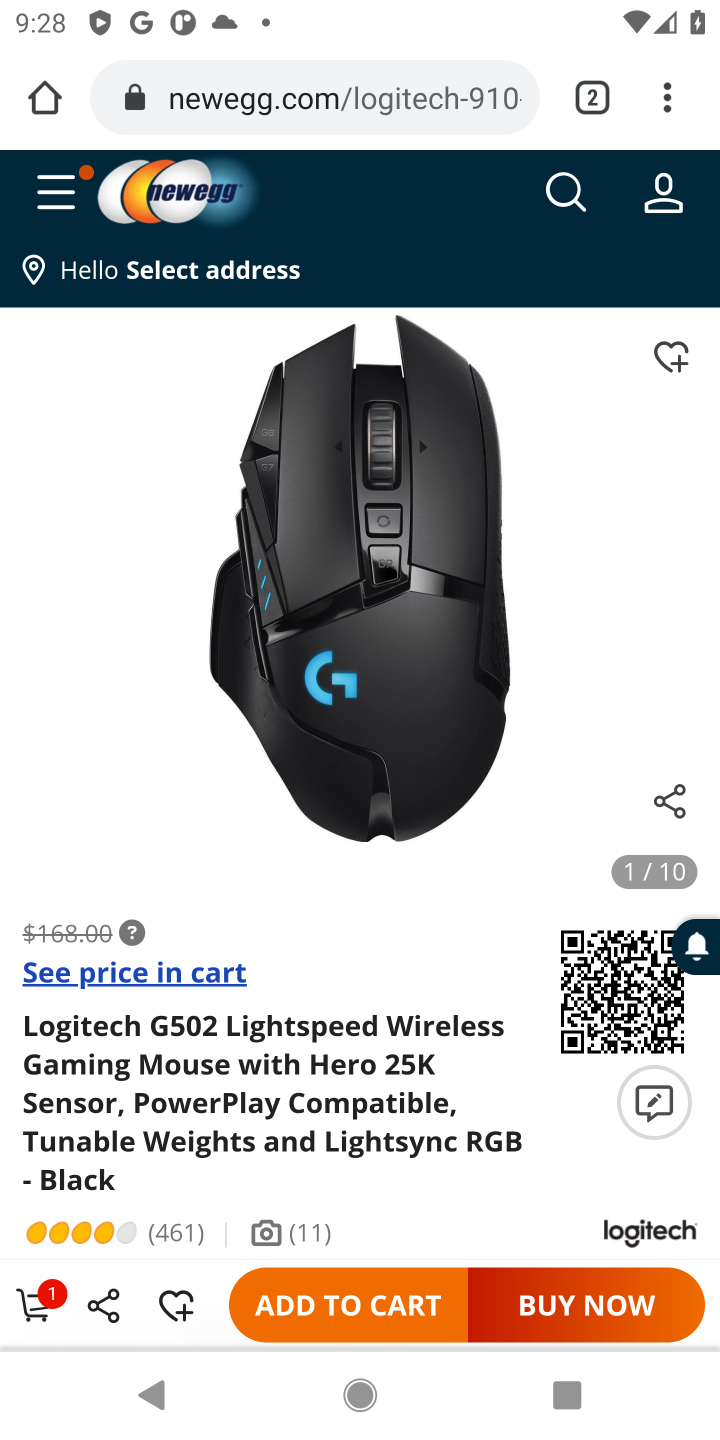
Step 29: click (42, 1308)
Your task to perform on an android device: Clear all items from cart on newegg.com. Add logitech g502 to the cart on newegg.com Image 30: 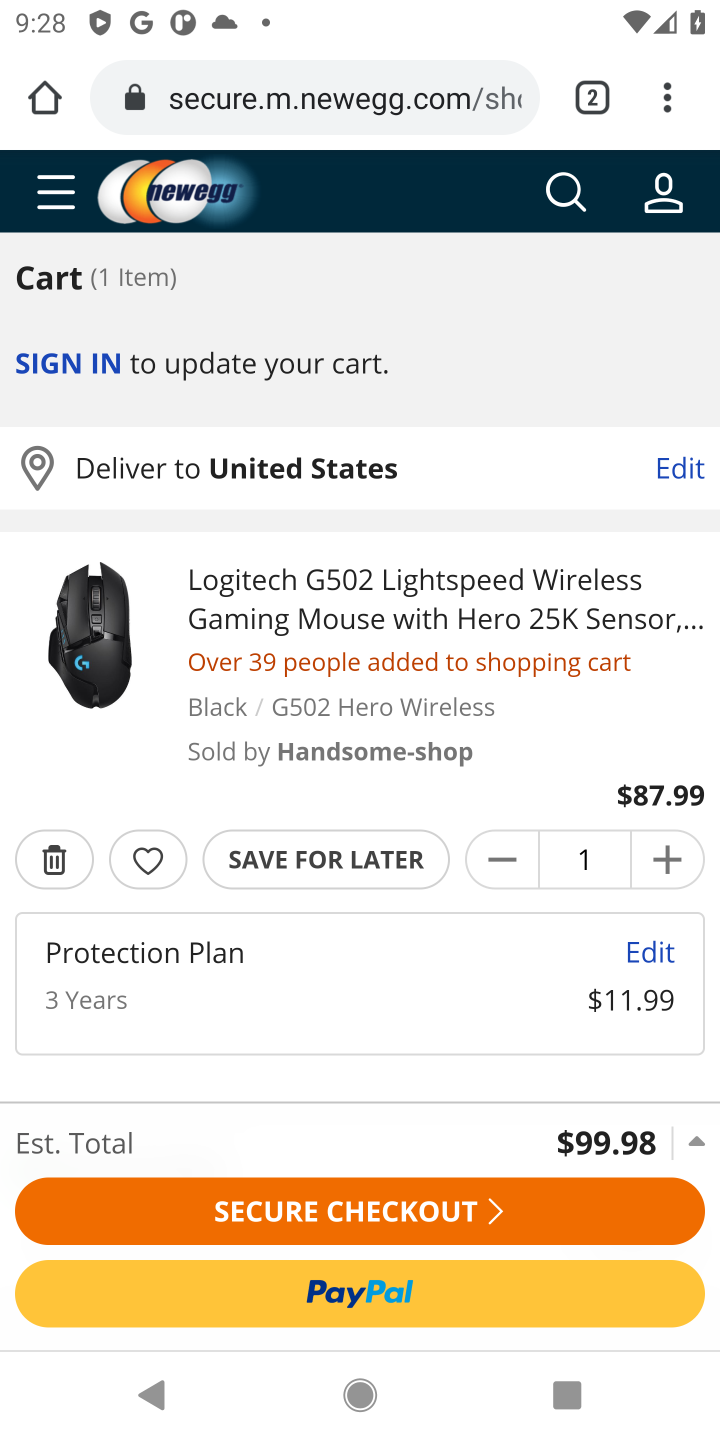
Step 30: task complete